Your task to perform on an android device: turn on the 24-hour format for clock Image 0: 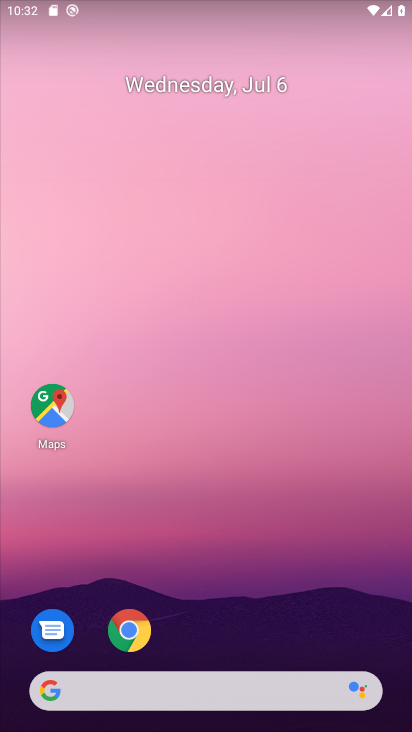
Step 0: click (401, 306)
Your task to perform on an android device: turn on the 24-hour format for clock Image 1: 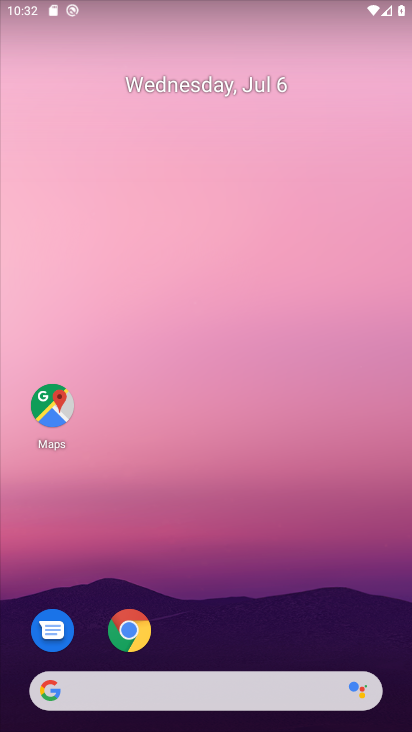
Step 1: drag from (268, 444) to (330, 267)
Your task to perform on an android device: turn on the 24-hour format for clock Image 2: 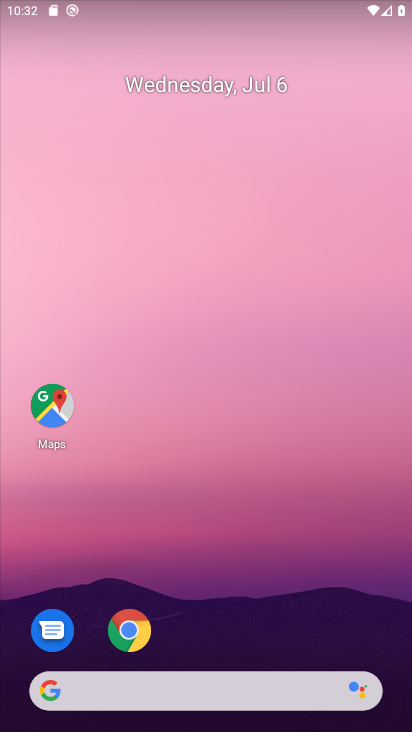
Step 2: drag from (190, 627) to (277, 238)
Your task to perform on an android device: turn on the 24-hour format for clock Image 3: 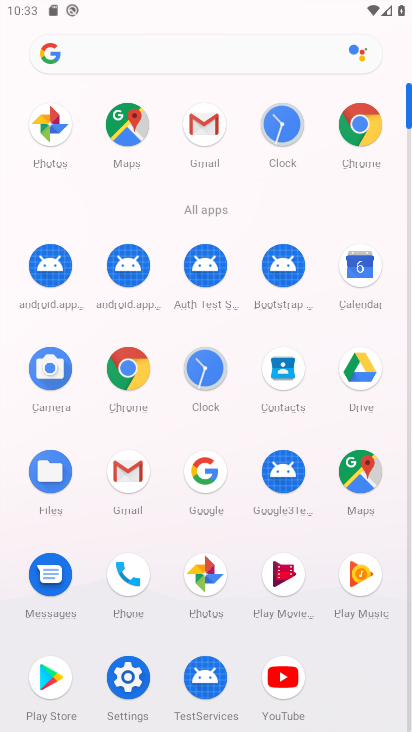
Step 3: click (199, 374)
Your task to perform on an android device: turn on the 24-hour format for clock Image 4: 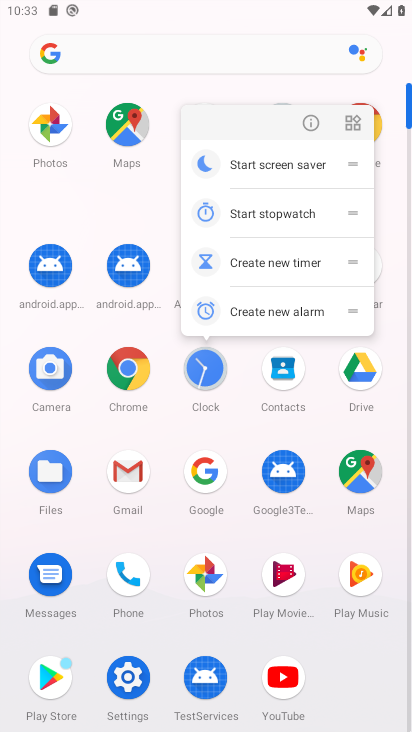
Step 4: click (305, 125)
Your task to perform on an android device: turn on the 24-hour format for clock Image 5: 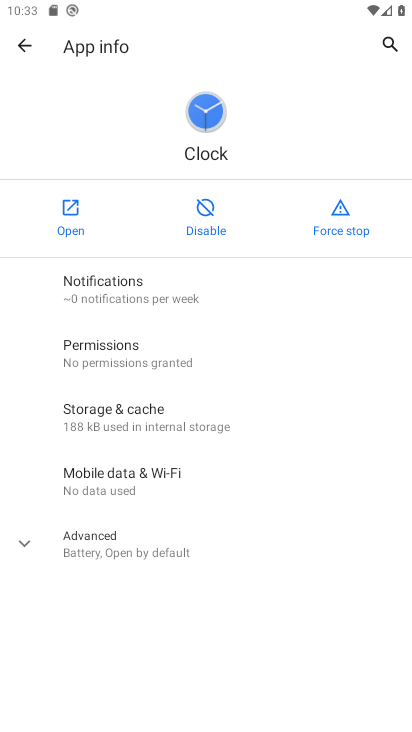
Step 5: click (69, 216)
Your task to perform on an android device: turn on the 24-hour format for clock Image 6: 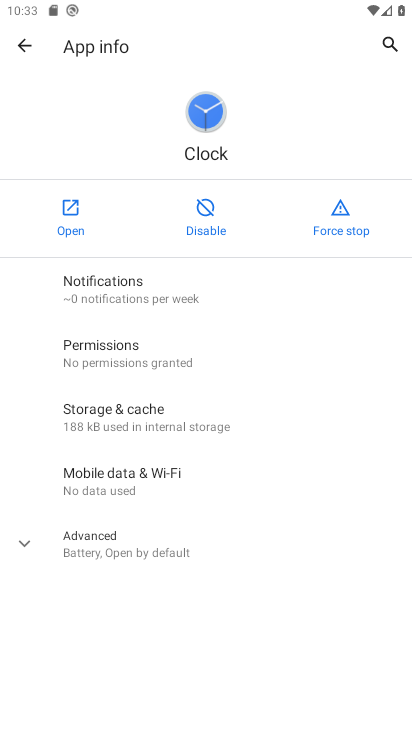
Step 6: click (69, 216)
Your task to perform on an android device: turn on the 24-hour format for clock Image 7: 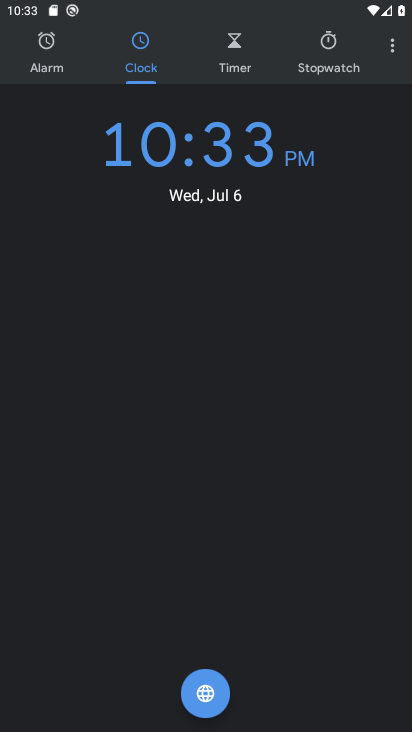
Step 7: click (392, 41)
Your task to perform on an android device: turn on the 24-hour format for clock Image 8: 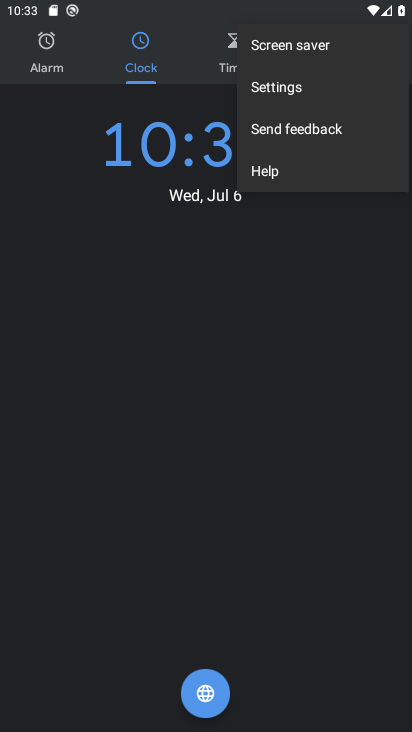
Step 8: click (306, 88)
Your task to perform on an android device: turn on the 24-hour format for clock Image 9: 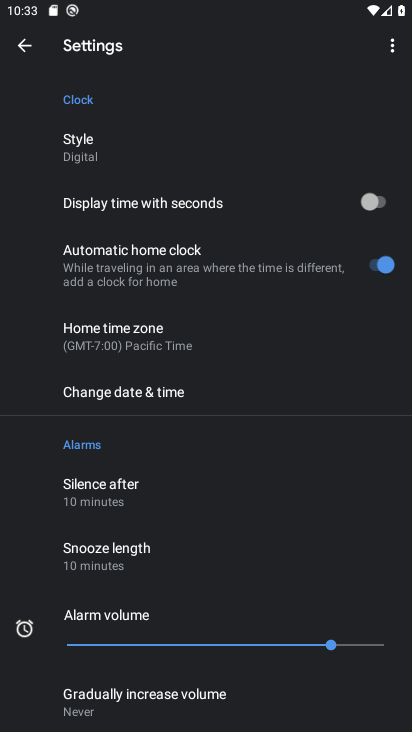
Step 9: click (145, 387)
Your task to perform on an android device: turn on the 24-hour format for clock Image 10: 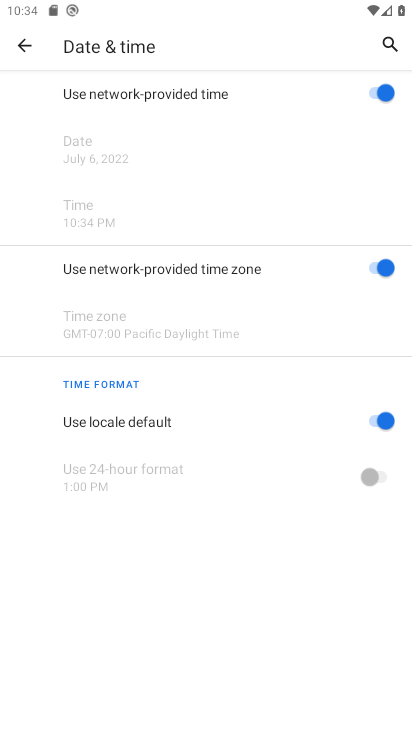
Step 10: drag from (209, 570) to (253, 358)
Your task to perform on an android device: turn on the 24-hour format for clock Image 11: 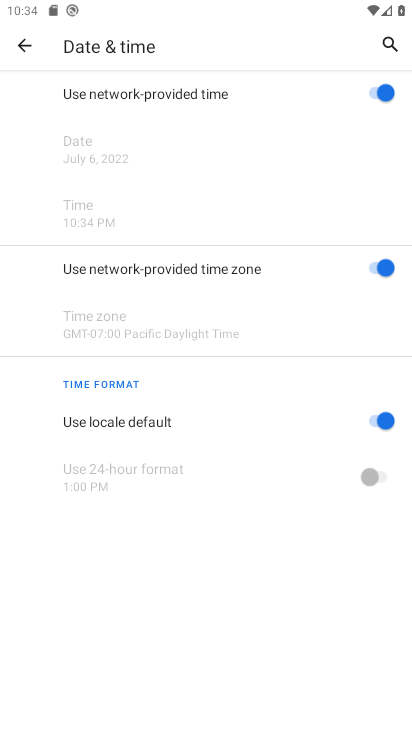
Step 11: click (384, 428)
Your task to perform on an android device: turn on the 24-hour format for clock Image 12: 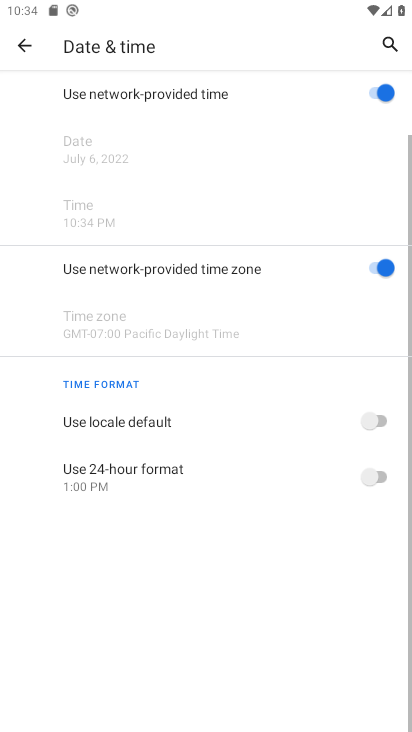
Step 12: click (369, 472)
Your task to perform on an android device: turn on the 24-hour format for clock Image 13: 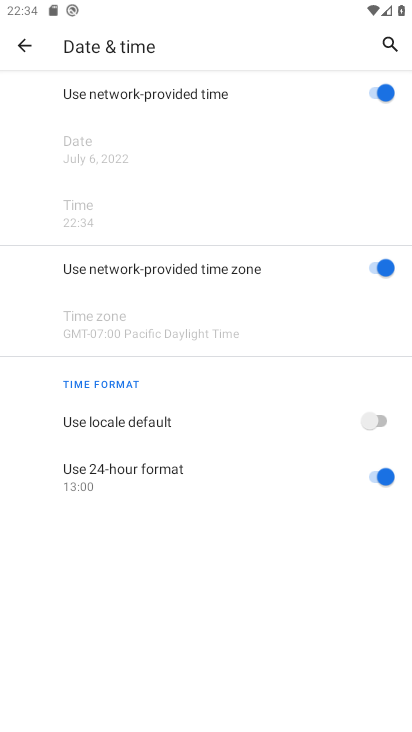
Step 13: task complete